Your task to perform on an android device: Open network settings Image 0: 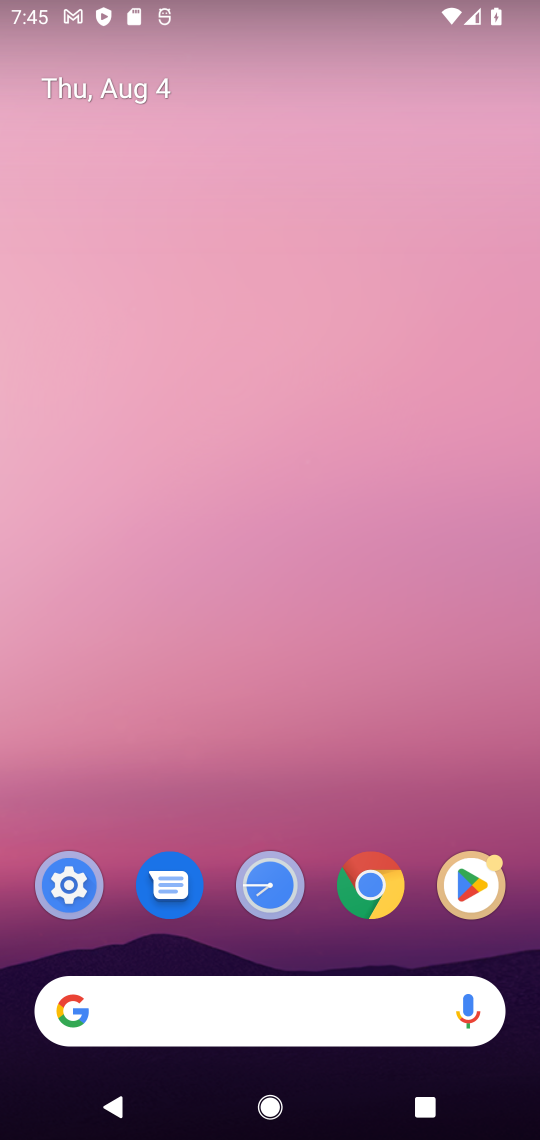
Step 0: drag from (367, 903) to (269, 64)
Your task to perform on an android device: Open network settings Image 1: 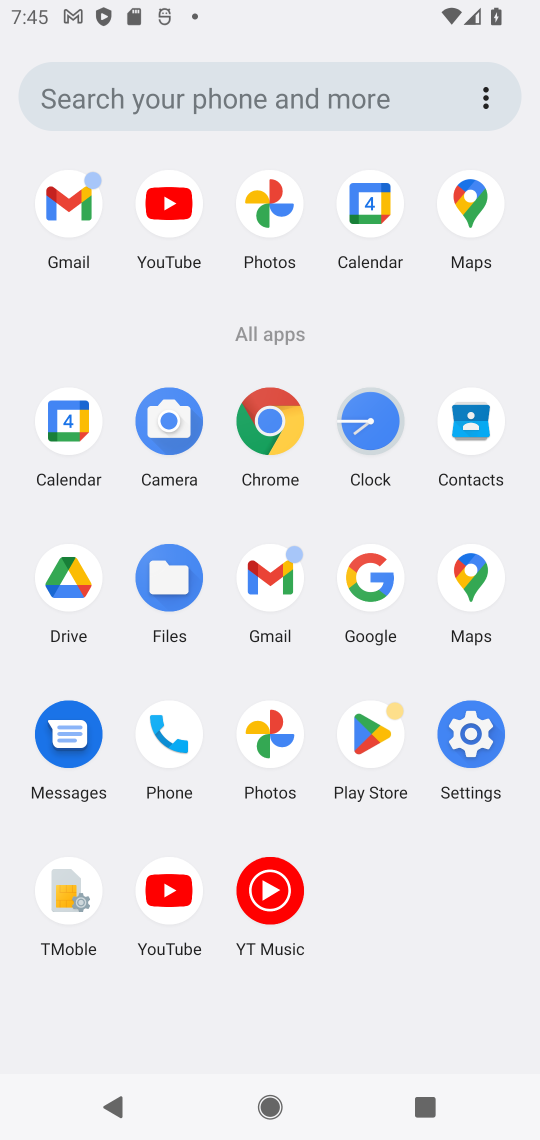
Step 1: click (478, 728)
Your task to perform on an android device: Open network settings Image 2: 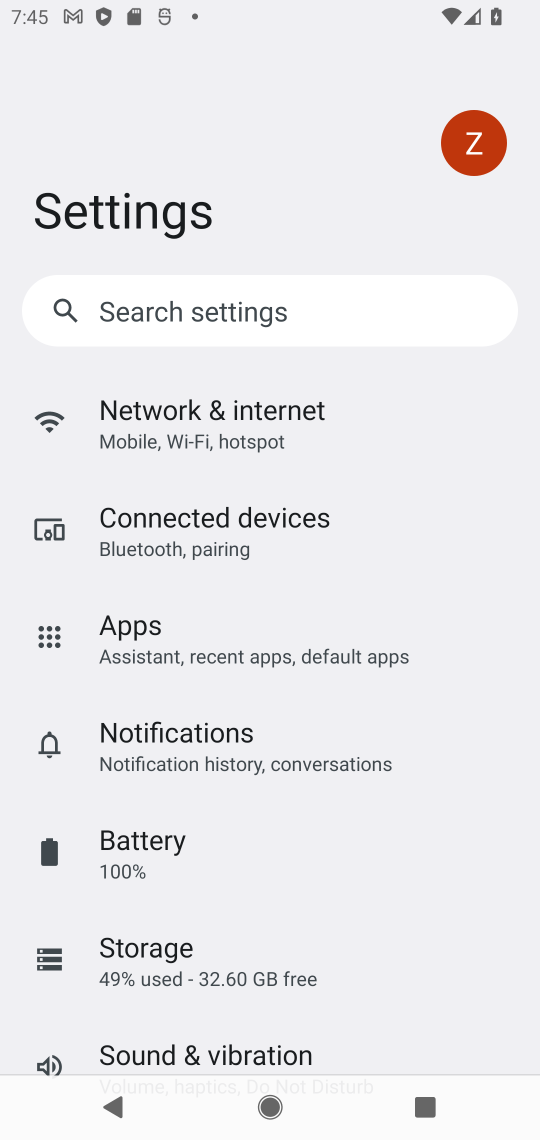
Step 2: click (224, 411)
Your task to perform on an android device: Open network settings Image 3: 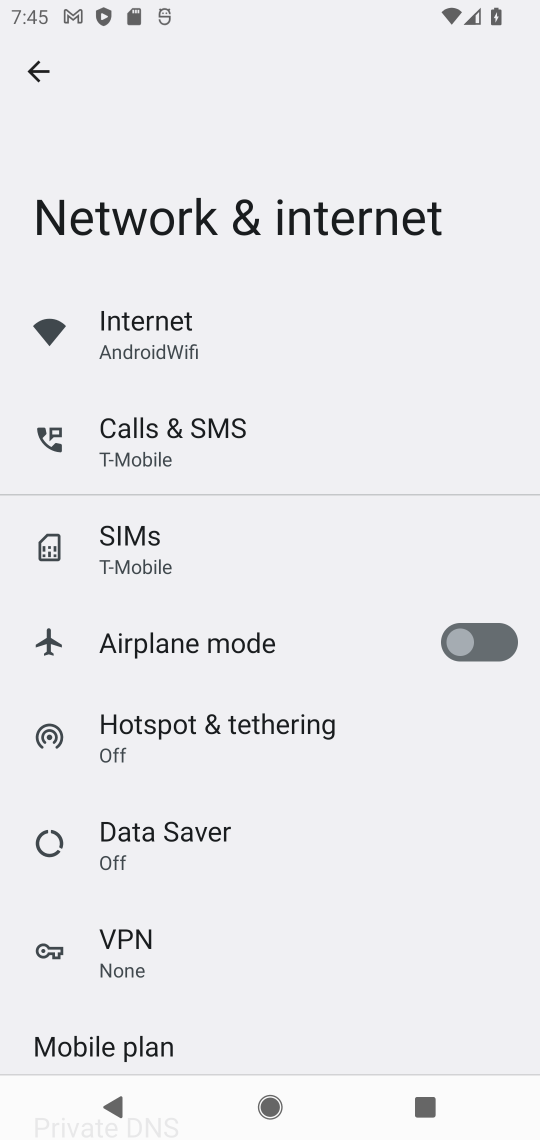
Step 3: task complete